Your task to perform on an android device: toggle improve location accuracy Image 0: 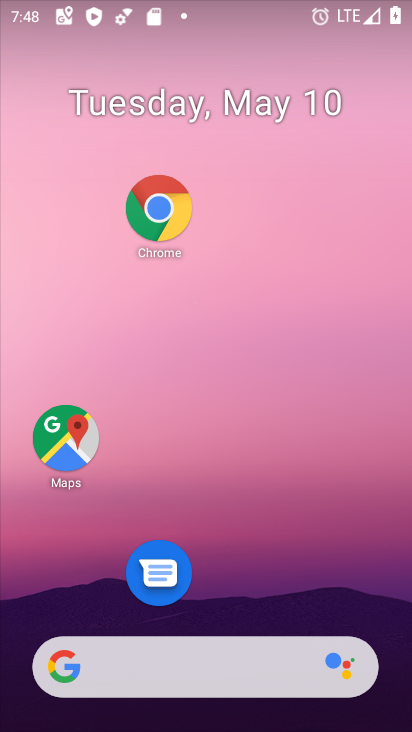
Step 0: drag from (263, 688) to (296, 216)
Your task to perform on an android device: toggle improve location accuracy Image 1: 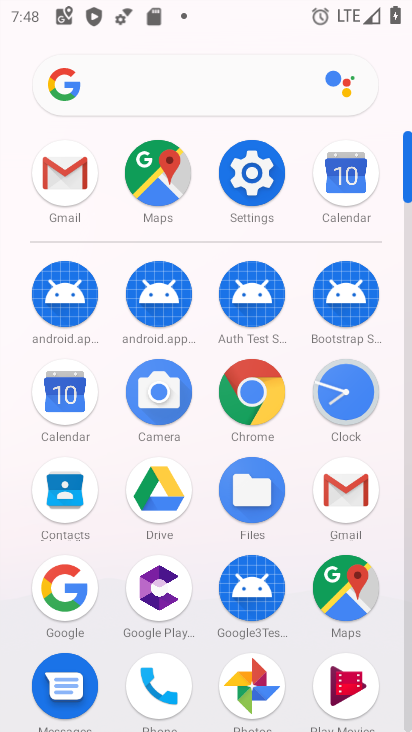
Step 1: click (255, 188)
Your task to perform on an android device: toggle improve location accuracy Image 2: 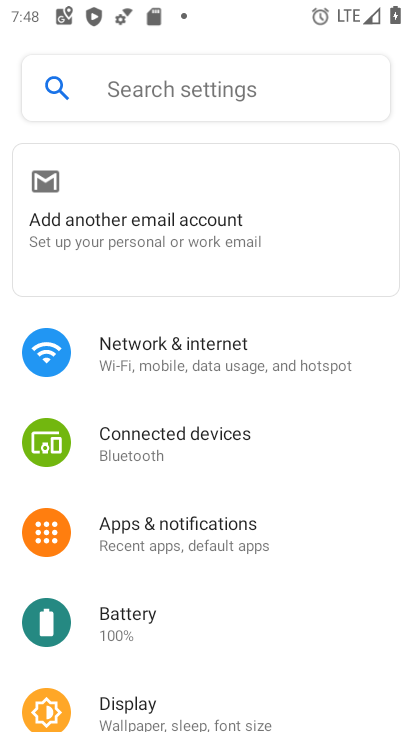
Step 2: click (133, 93)
Your task to perform on an android device: toggle improve location accuracy Image 3: 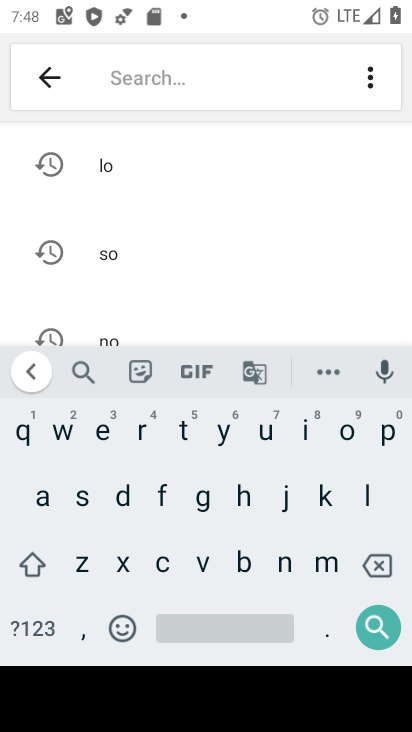
Step 3: click (144, 170)
Your task to perform on an android device: toggle improve location accuracy Image 4: 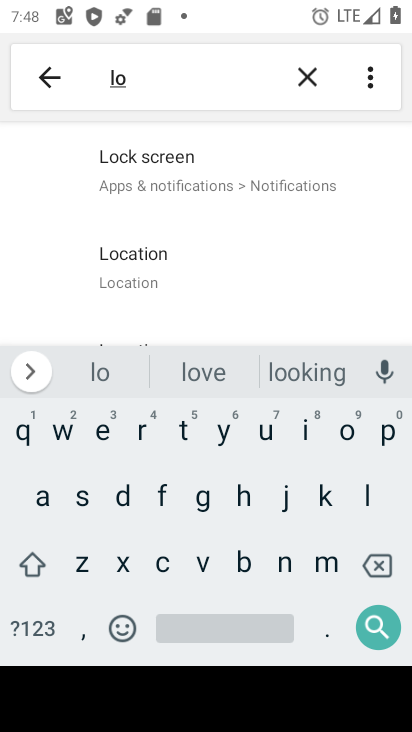
Step 4: click (144, 260)
Your task to perform on an android device: toggle improve location accuracy Image 5: 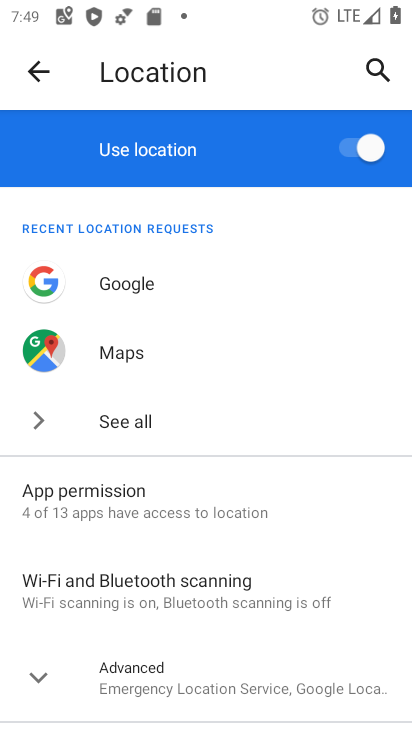
Step 5: click (44, 670)
Your task to perform on an android device: toggle improve location accuracy Image 6: 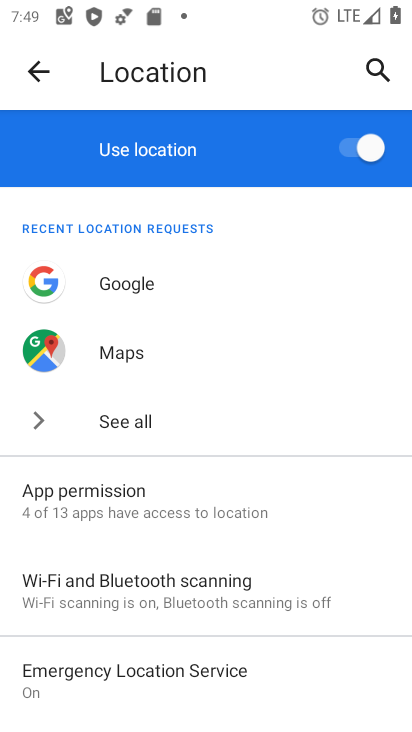
Step 6: drag from (189, 639) to (262, 448)
Your task to perform on an android device: toggle improve location accuracy Image 7: 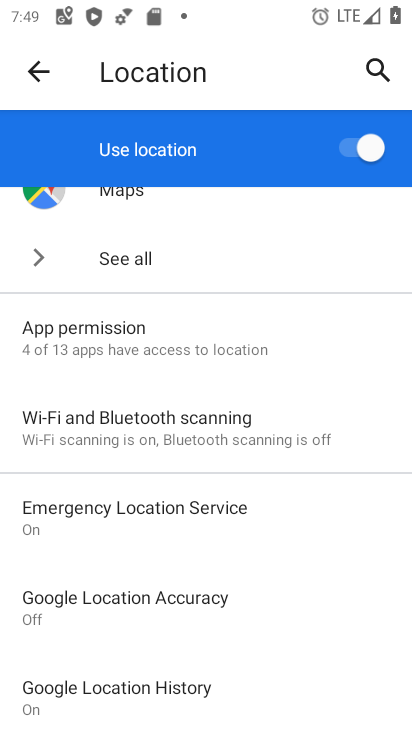
Step 7: click (186, 604)
Your task to perform on an android device: toggle improve location accuracy Image 8: 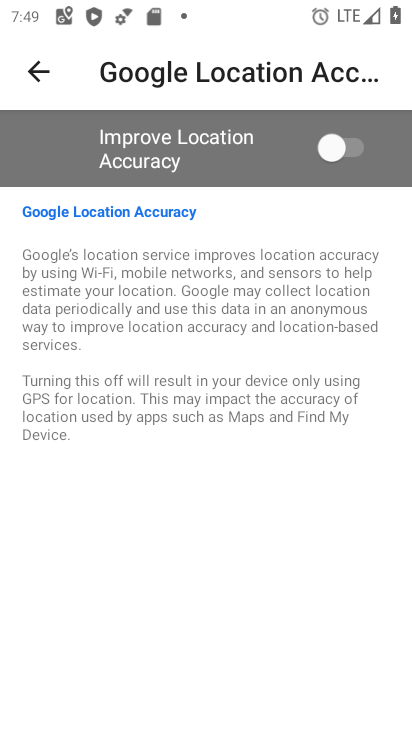
Step 8: task complete